Your task to perform on an android device: Is it going to rain tomorrow? Image 0: 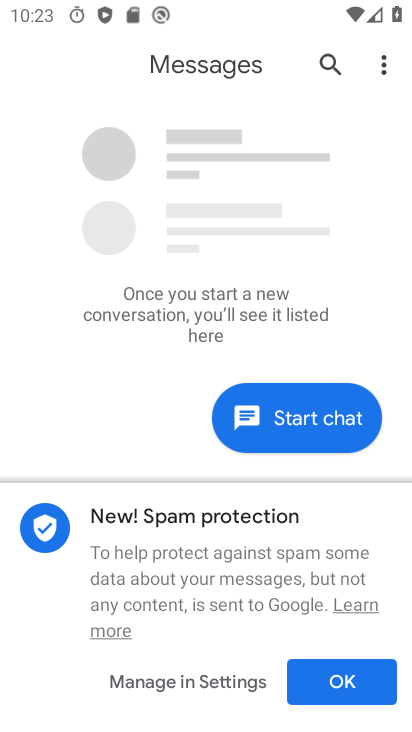
Step 0: press home button
Your task to perform on an android device: Is it going to rain tomorrow? Image 1: 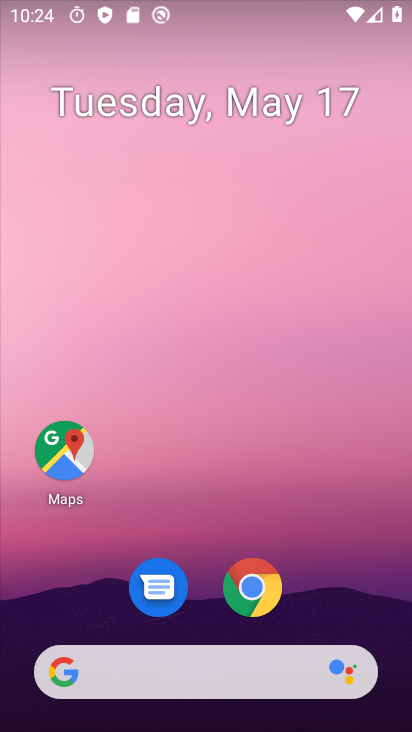
Step 1: drag from (378, 521) to (289, 109)
Your task to perform on an android device: Is it going to rain tomorrow? Image 2: 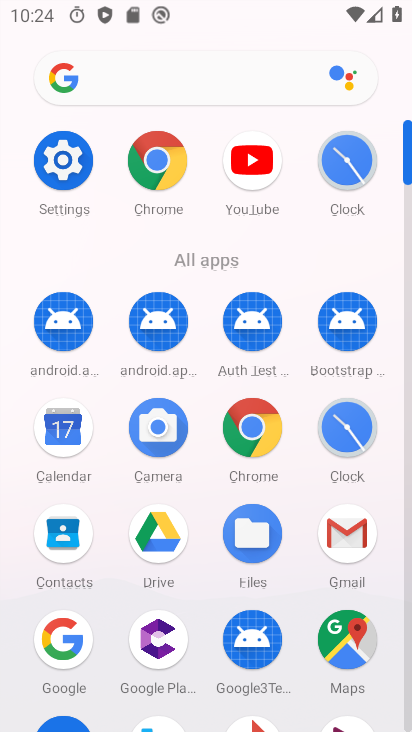
Step 2: click (253, 444)
Your task to perform on an android device: Is it going to rain tomorrow? Image 3: 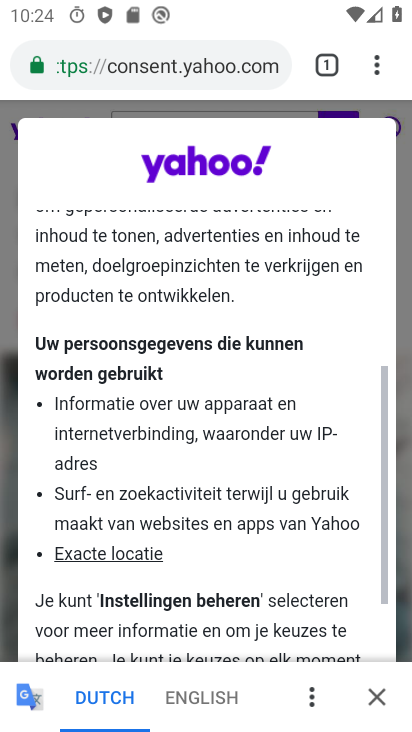
Step 3: click (265, 58)
Your task to perform on an android device: Is it going to rain tomorrow? Image 4: 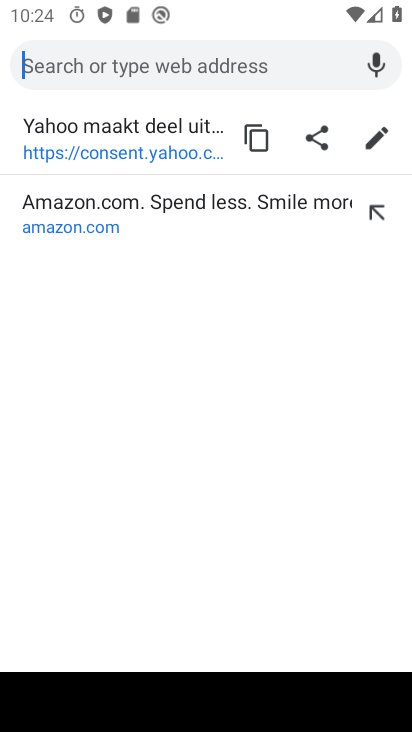
Step 4: type "is it going to rain tomorrow"
Your task to perform on an android device: Is it going to rain tomorrow? Image 5: 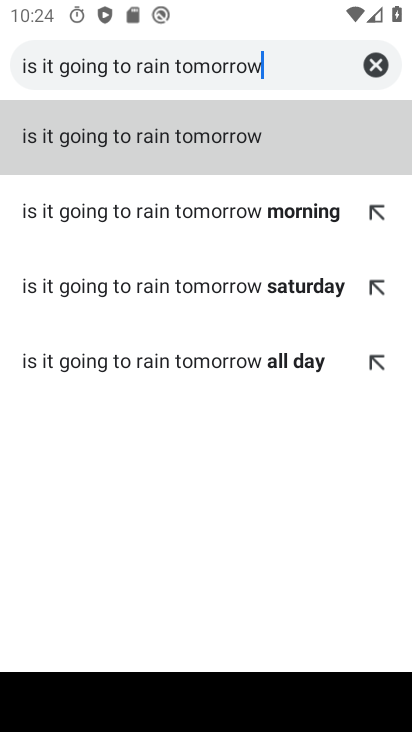
Step 5: click (154, 135)
Your task to perform on an android device: Is it going to rain tomorrow? Image 6: 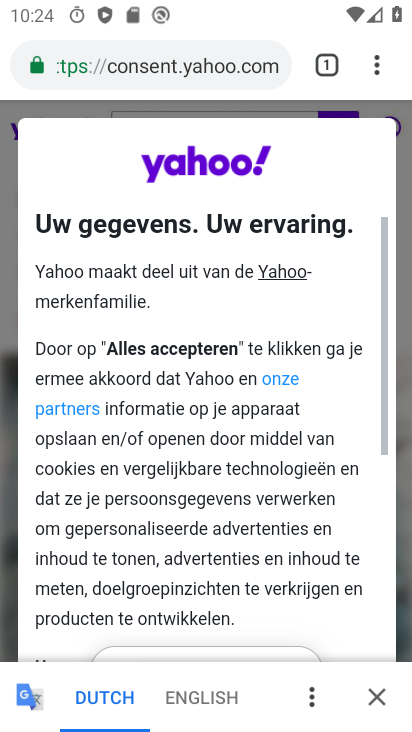
Step 6: task complete